Your task to perform on an android device: turn pop-ups on in chrome Image 0: 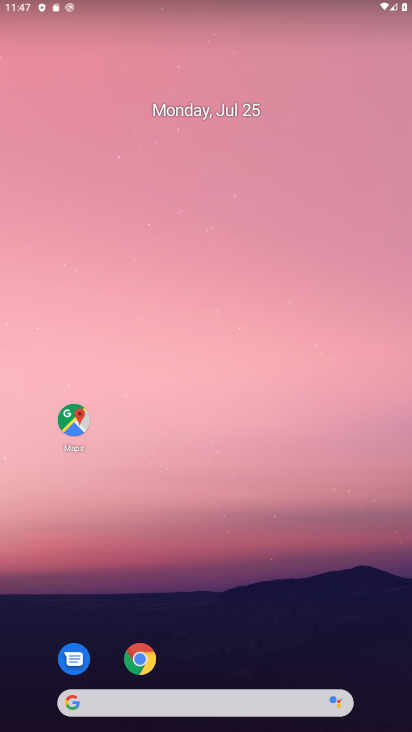
Step 0: drag from (196, 662) to (256, 213)
Your task to perform on an android device: turn pop-ups on in chrome Image 1: 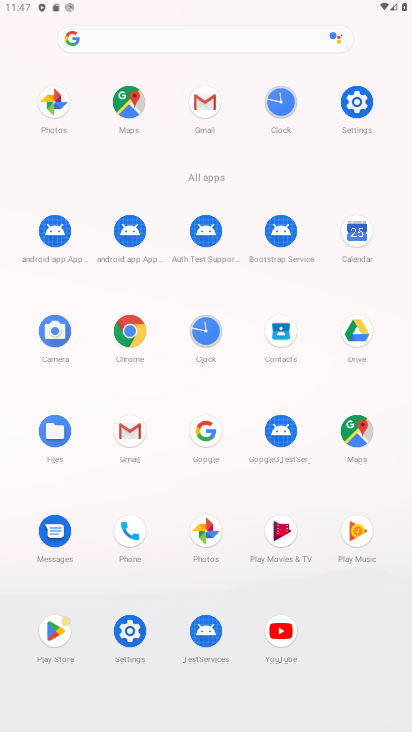
Step 1: click (128, 320)
Your task to perform on an android device: turn pop-ups on in chrome Image 2: 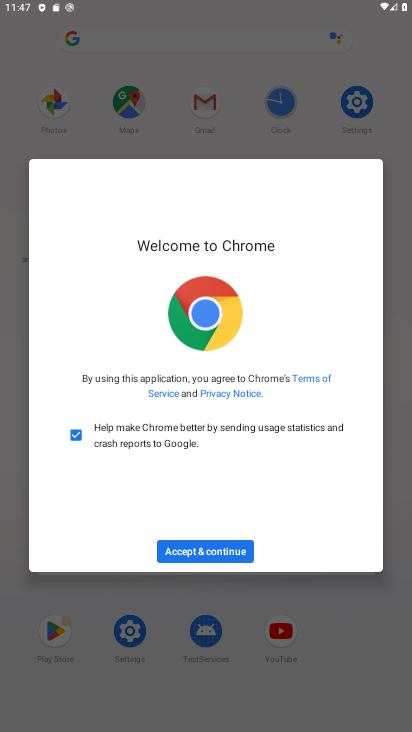
Step 2: click (206, 548)
Your task to perform on an android device: turn pop-ups on in chrome Image 3: 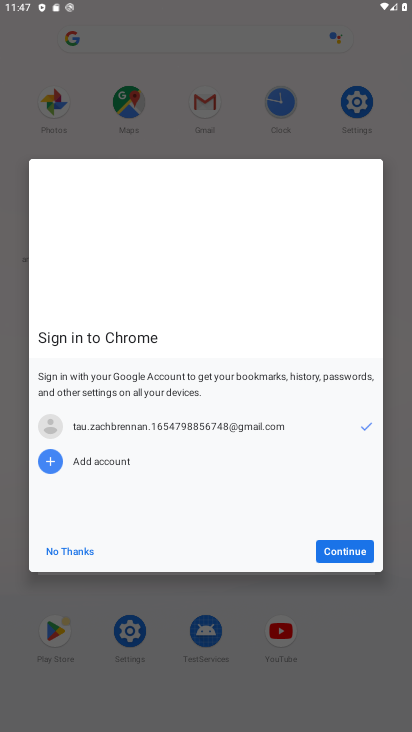
Step 3: click (339, 544)
Your task to perform on an android device: turn pop-ups on in chrome Image 4: 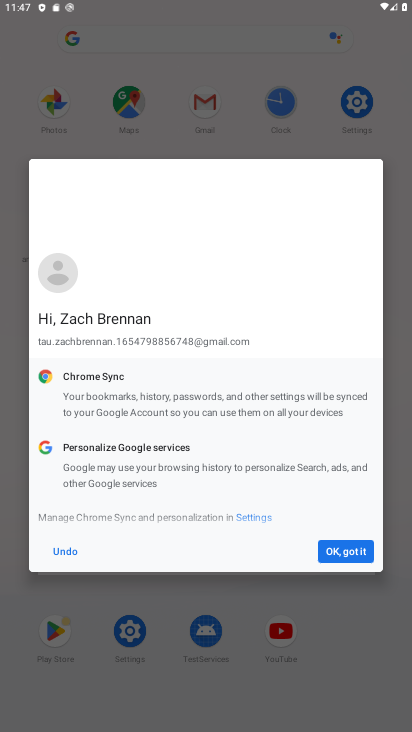
Step 4: click (331, 552)
Your task to perform on an android device: turn pop-ups on in chrome Image 5: 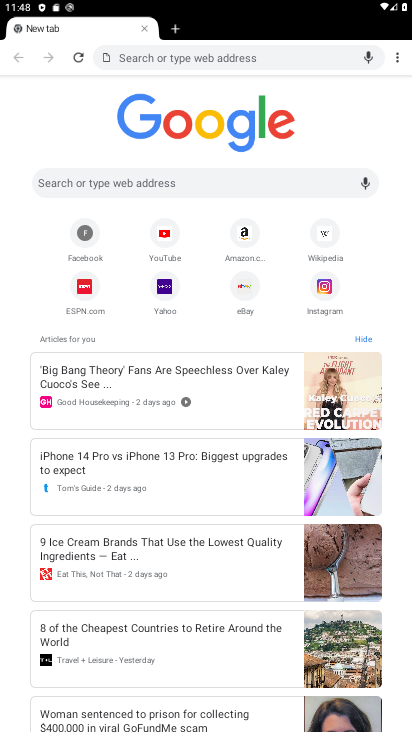
Step 5: drag from (399, 53) to (299, 267)
Your task to perform on an android device: turn pop-ups on in chrome Image 6: 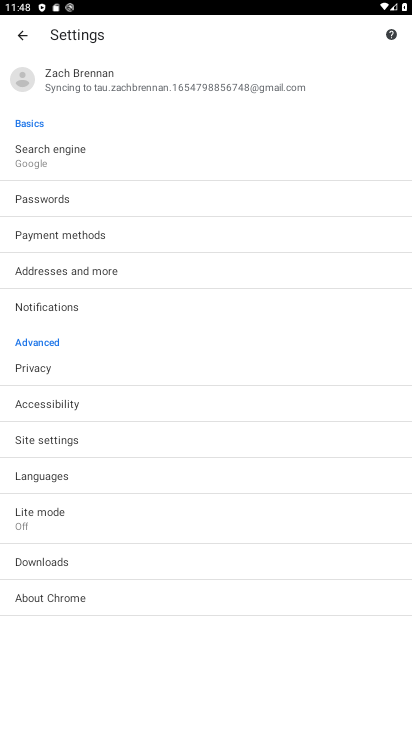
Step 6: click (81, 439)
Your task to perform on an android device: turn pop-ups on in chrome Image 7: 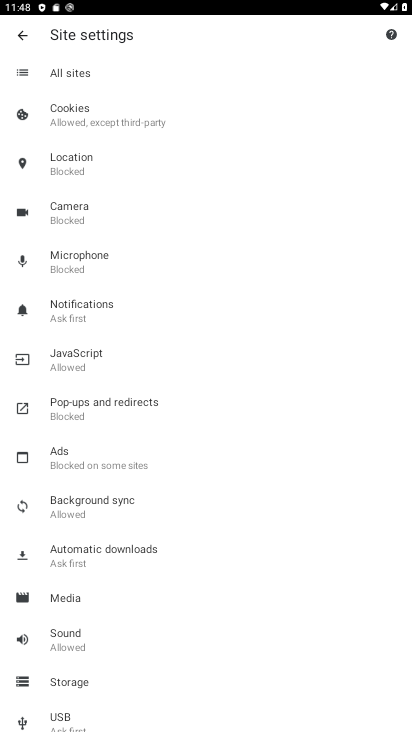
Step 7: click (97, 404)
Your task to perform on an android device: turn pop-ups on in chrome Image 8: 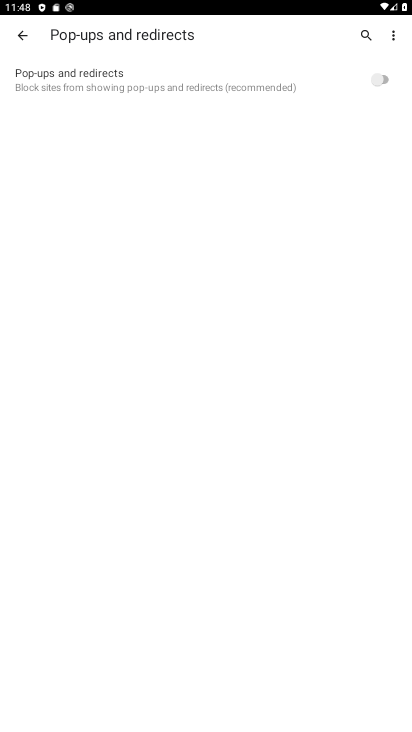
Step 8: click (349, 81)
Your task to perform on an android device: turn pop-ups on in chrome Image 9: 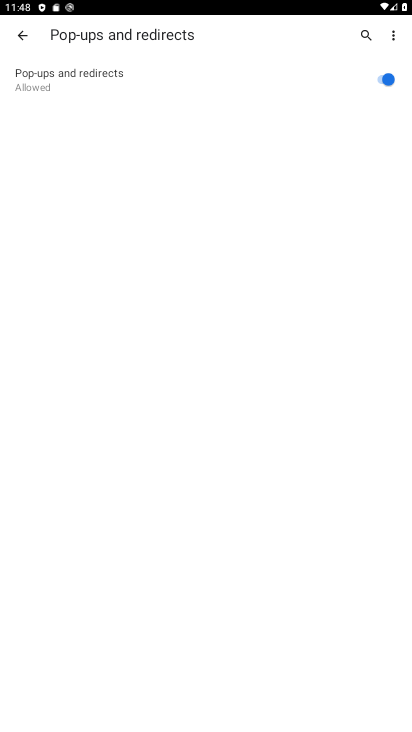
Step 9: task complete